Your task to perform on an android device: What's the weather today? Image 0: 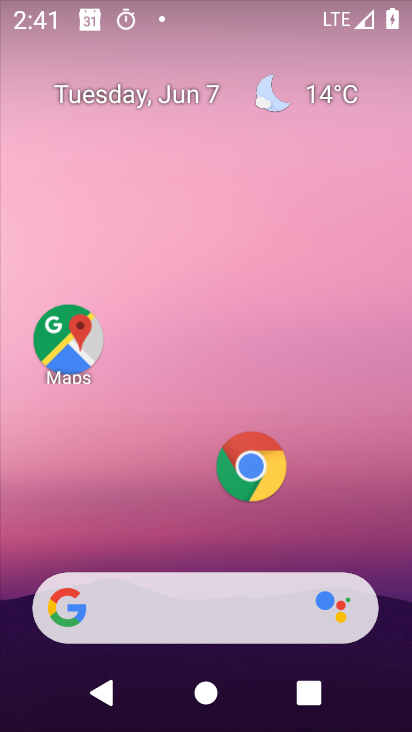
Step 0: click (252, 623)
Your task to perform on an android device: What's the weather today? Image 1: 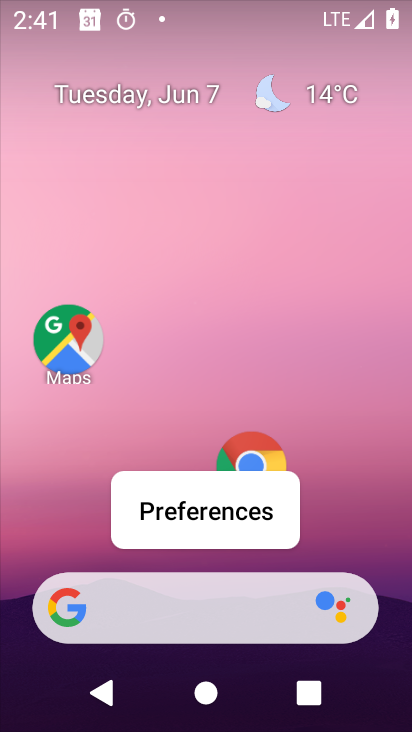
Step 1: click (243, 592)
Your task to perform on an android device: What's the weather today? Image 2: 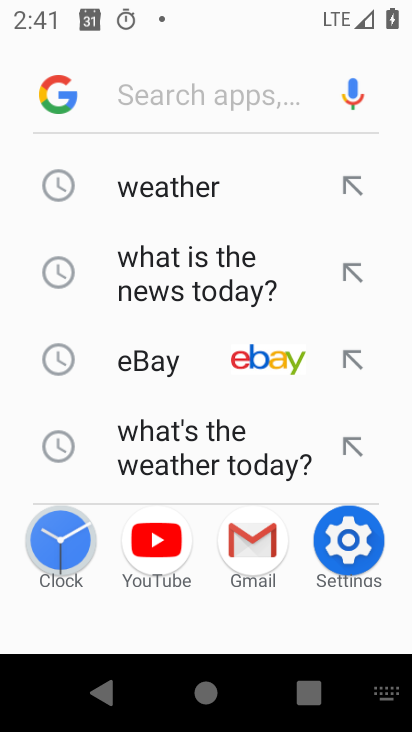
Step 2: click (199, 205)
Your task to perform on an android device: What's the weather today? Image 3: 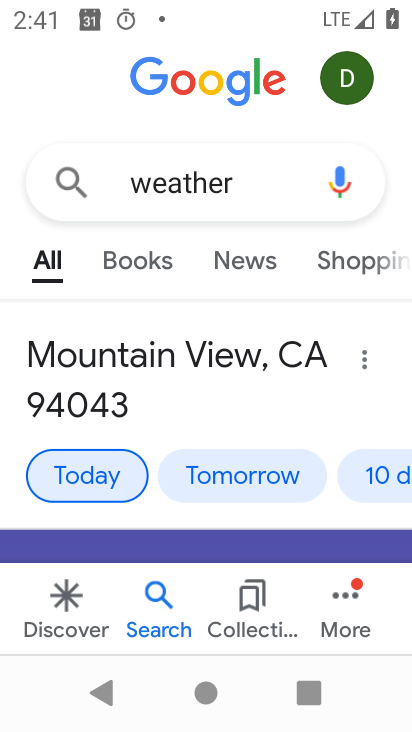
Step 3: task complete